Your task to perform on an android device: allow cookies in the chrome app Image 0: 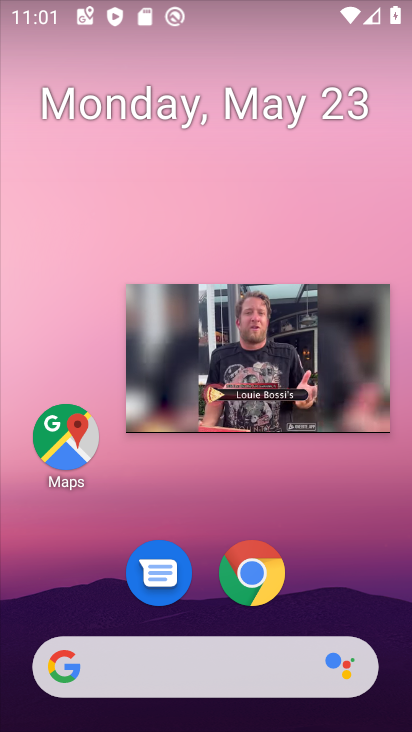
Step 0: click (349, 335)
Your task to perform on an android device: allow cookies in the chrome app Image 1: 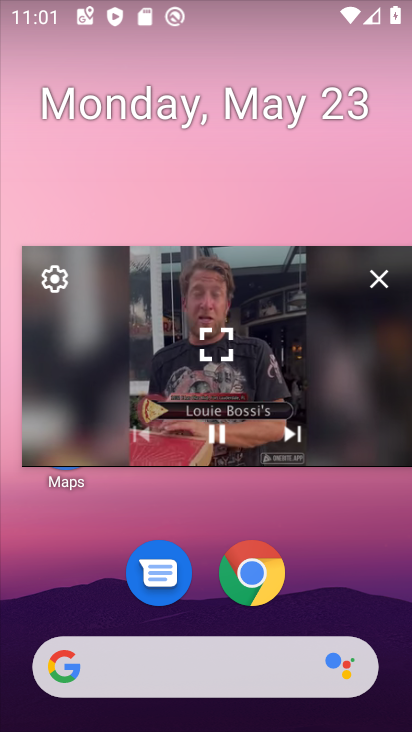
Step 1: click (378, 283)
Your task to perform on an android device: allow cookies in the chrome app Image 2: 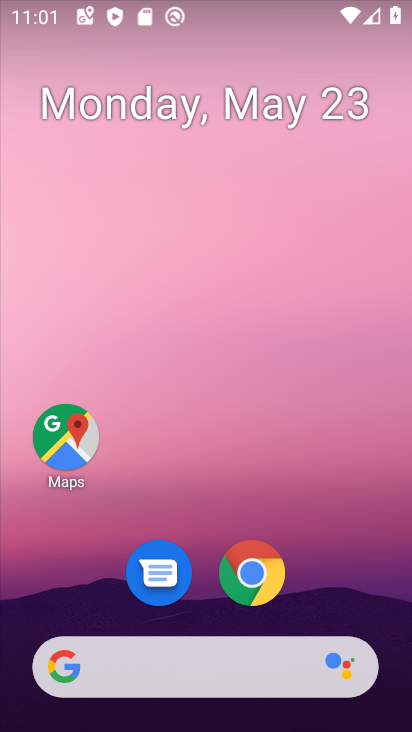
Step 2: click (259, 577)
Your task to perform on an android device: allow cookies in the chrome app Image 3: 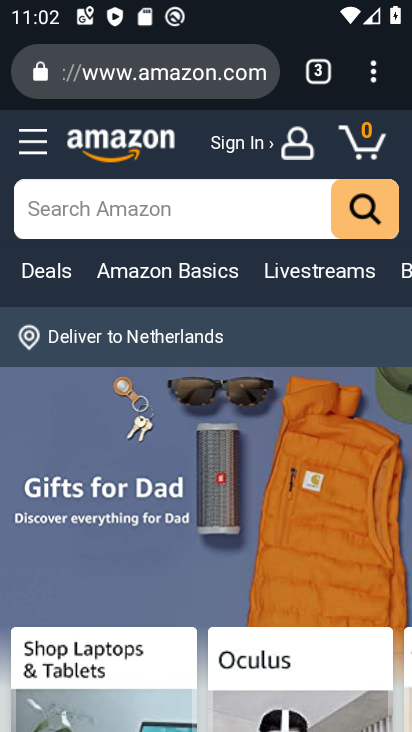
Step 3: click (378, 73)
Your task to perform on an android device: allow cookies in the chrome app Image 4: 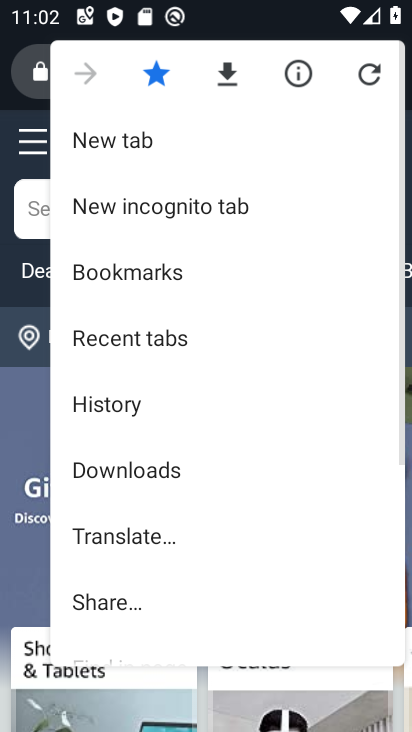
Step 4: drag from (242, 512) to (254, 289)
Your task to perform on an android device: allow cookies in the chrome app Image 5: 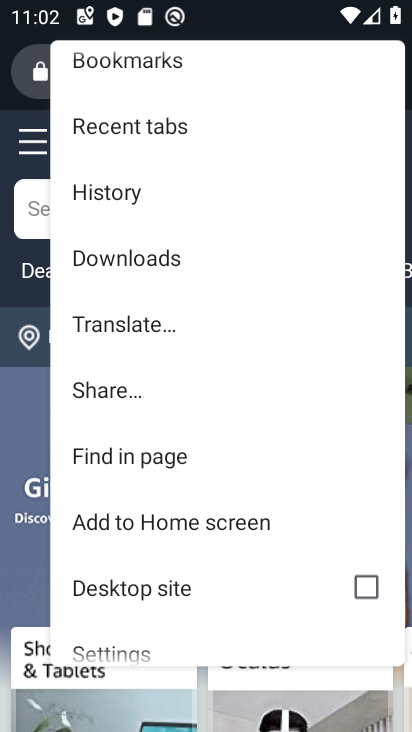
Step 5: drag from (178, 554) to (167, 264)
Your task to perform on an android device: allow cookies in the chrome app Image 6: 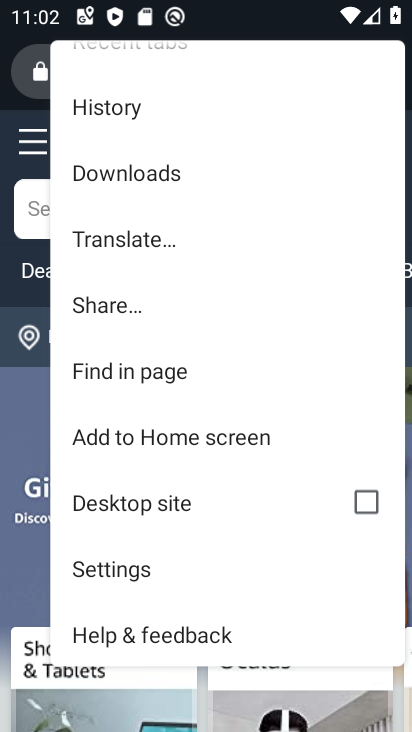
Step 6: click (129, 573)
Your task to perform on an android device: allow cookies in the chrome app Image 7: 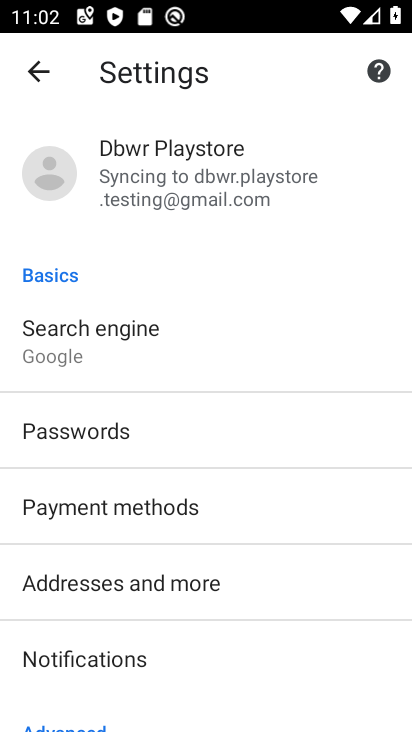
Step 7: drag from (195, 568) to (191, 443)
Your task to perform on an android device: allow cookies in the chrome app Image 8: 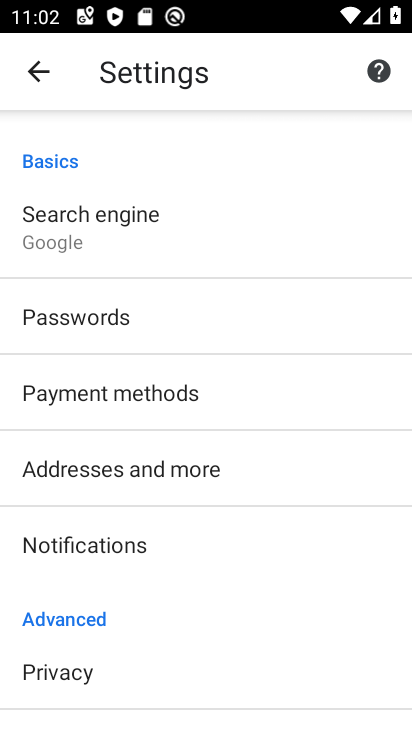
Step 8: drag from (198, 584) to (195, 391)
Your task to perform on an android device: allow cookies in the chrome app Image 9: 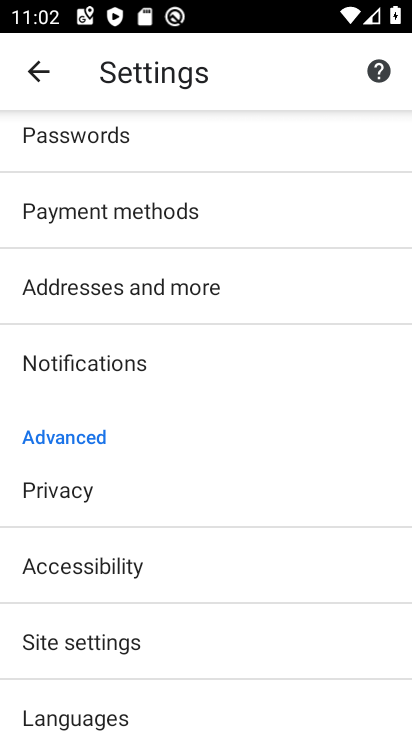
Step 9: click (158, 636)
Your task to perform on an android device: allow cookies in the chrome app Image 10: 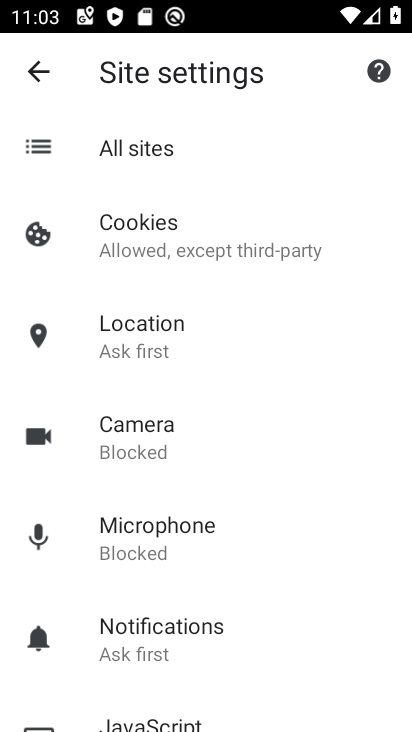
Step 10: click (143, 256)
Your task to perform on an android device: allow cookies in the chrome app Image 11: 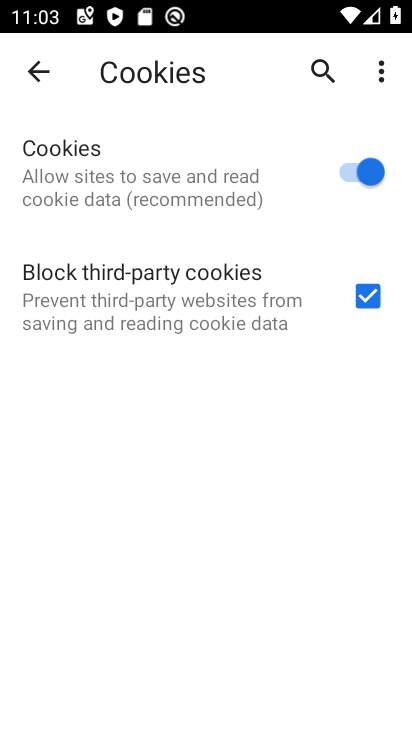
Step 11: task complete